Your task to perform on an android device: turn off improve location accuracy Image 0: 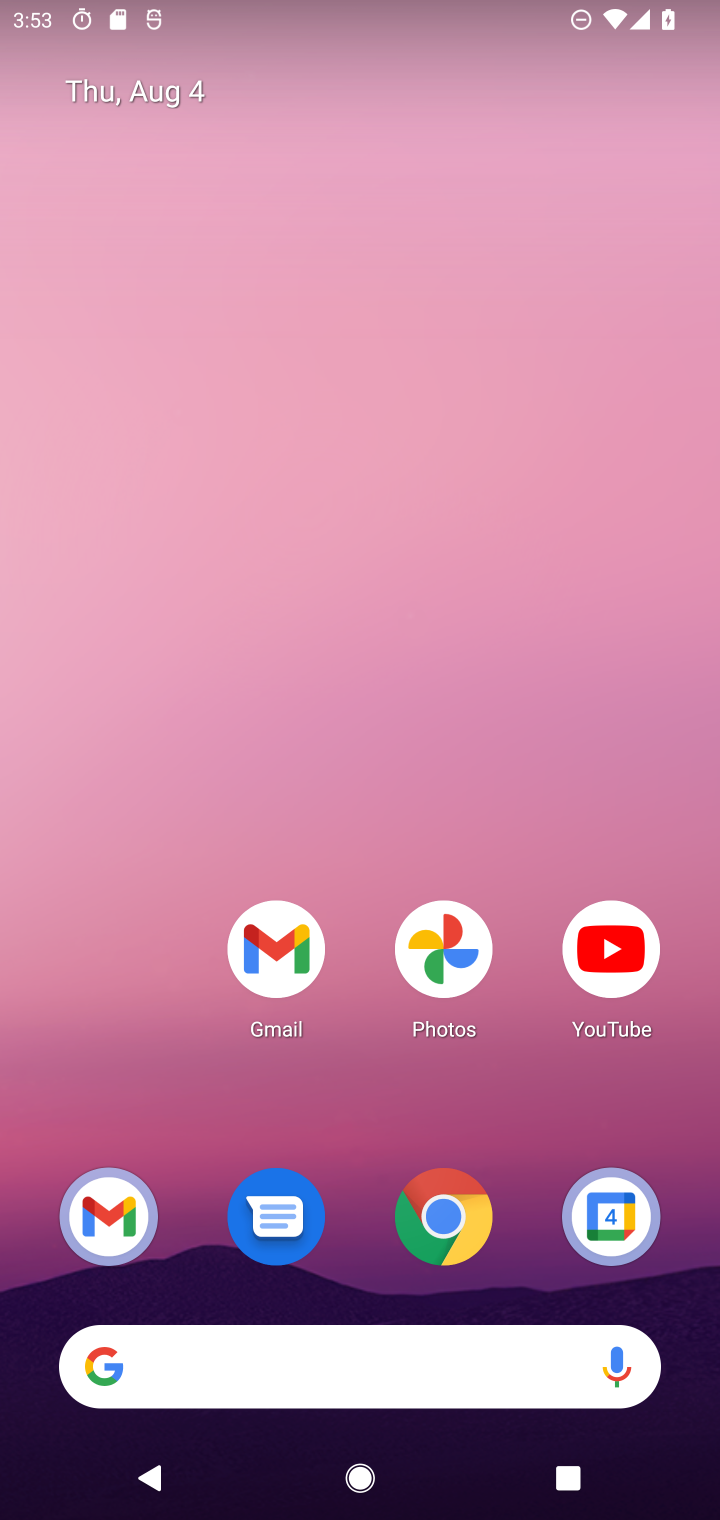
Step 0: drag from (188, 1076) to (236, 200)
Your task to perform on an android device: turn off improve location accuracy Image 1: 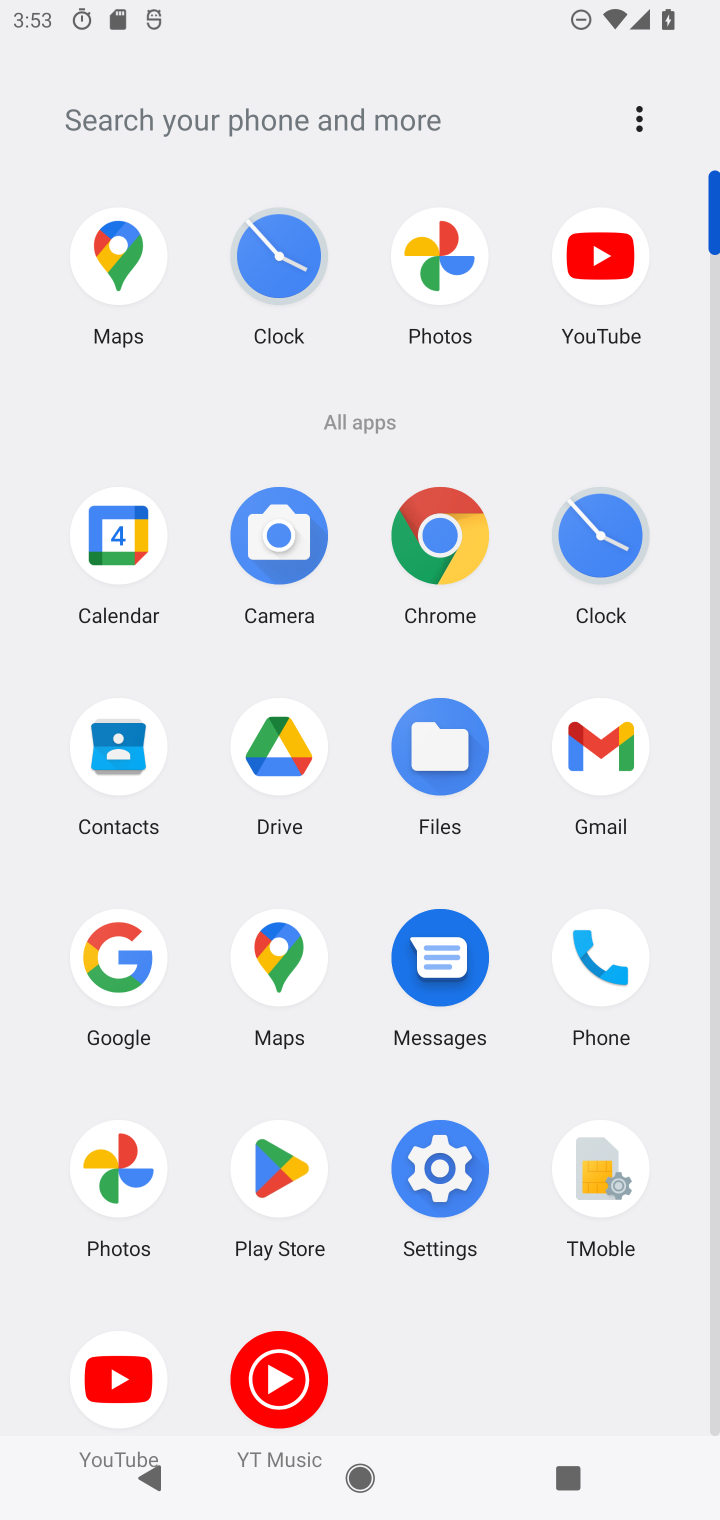
Step 1: click (446, 1160)
Your task to perform on an android device: turn off improve location accuracy Image 2: 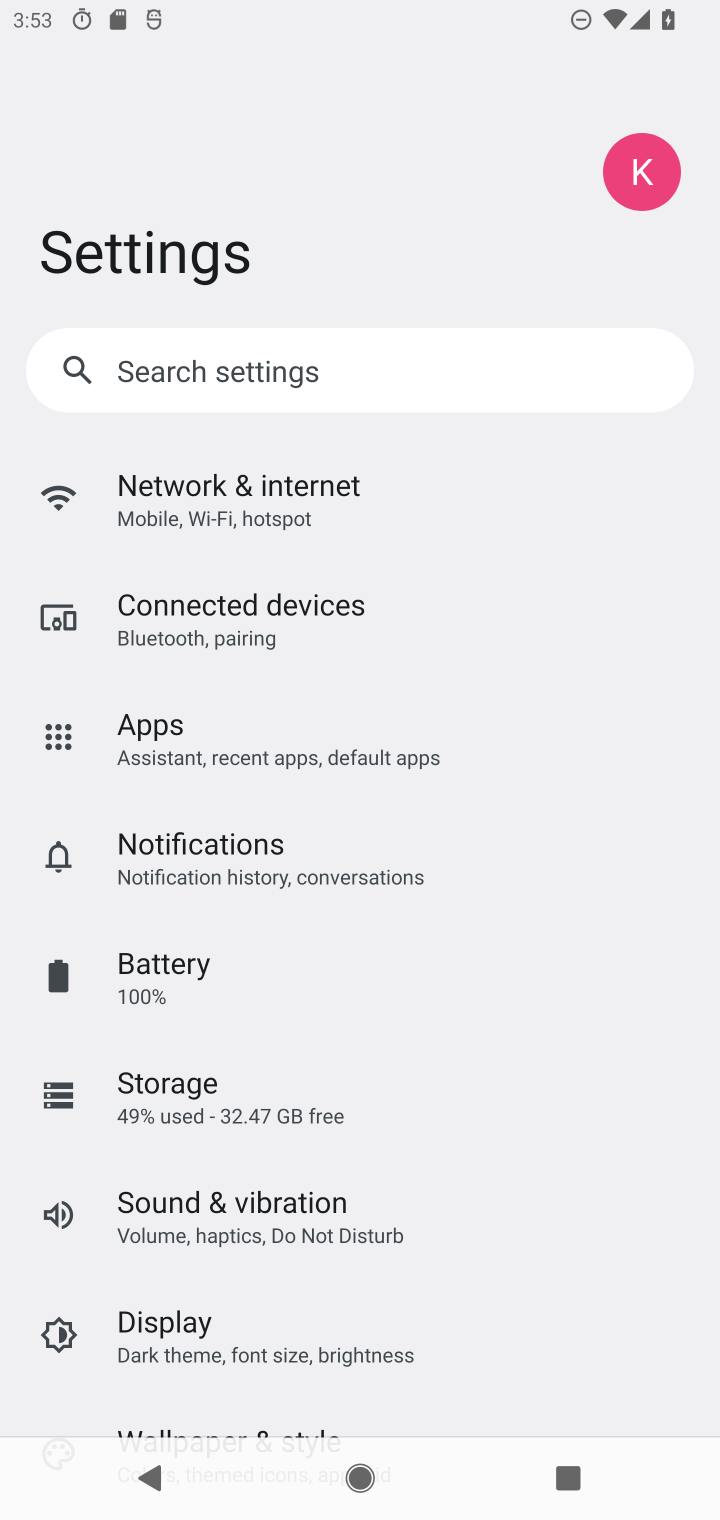
Step 2: drag from (263, 1320) to (555, 271)
Your task to perform on an android device: turn off improve location accuracy Image 3: 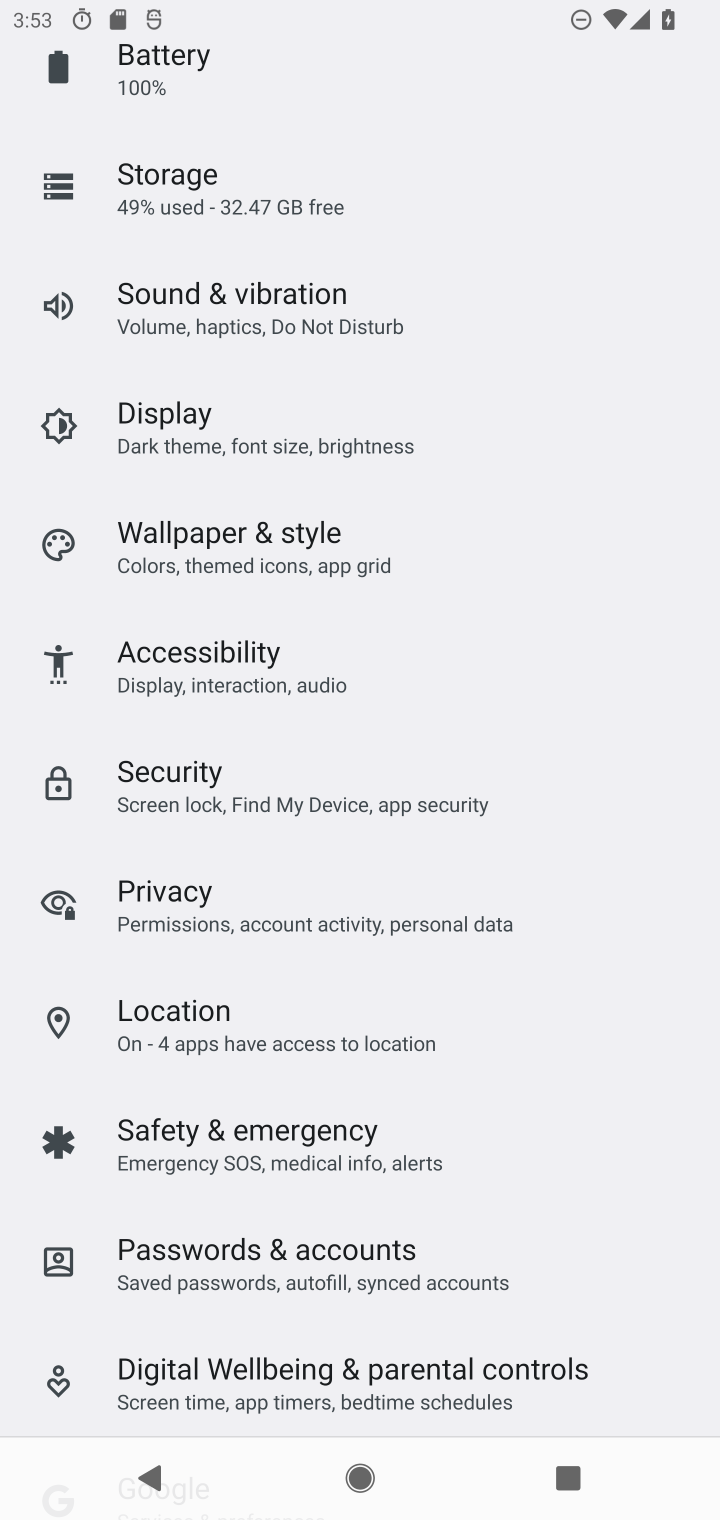
Step 3: click (182, 1017)
Your task to perform on an android device: turn off improve location accuracy Image 4: 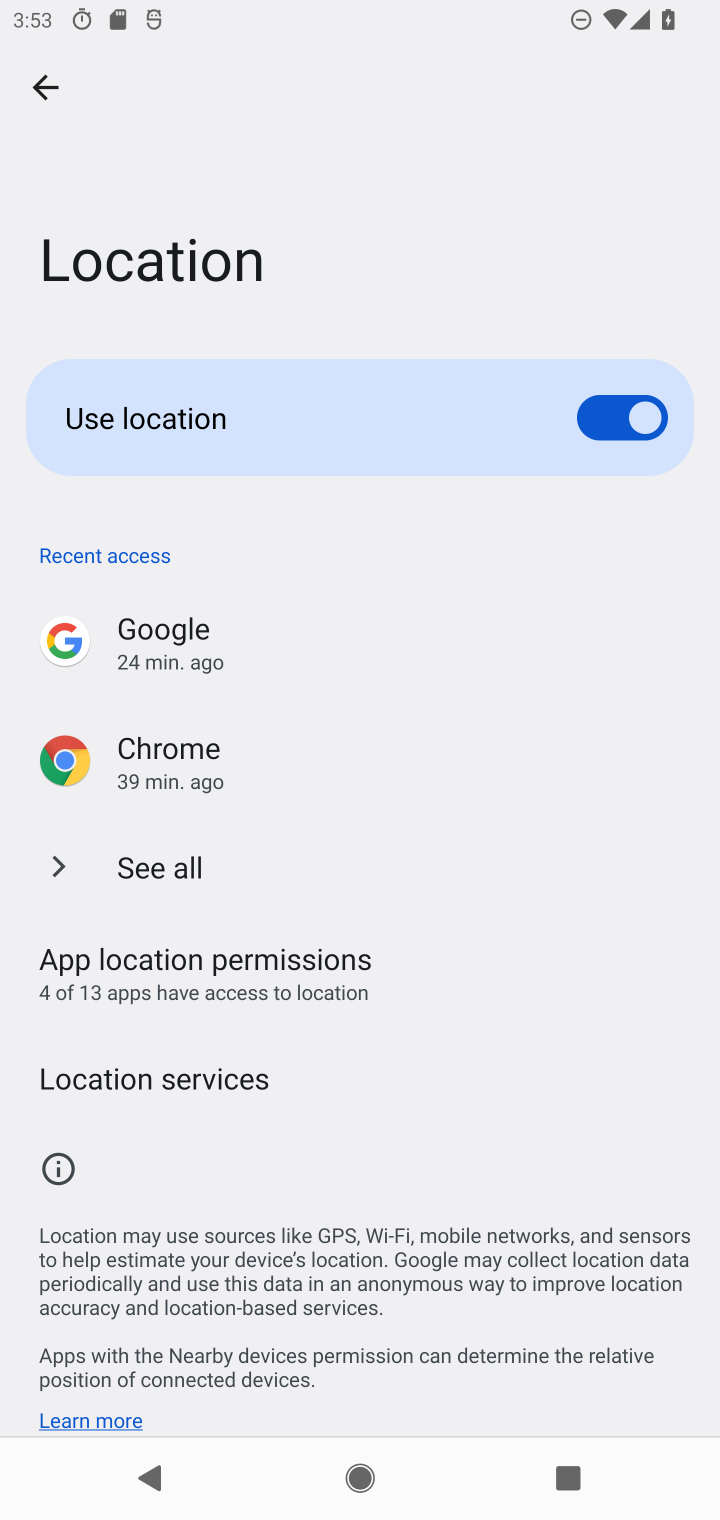
Step 4: click (159, 1074)
Your task to perform on an android device: turn off improve location accuracy Image 5: 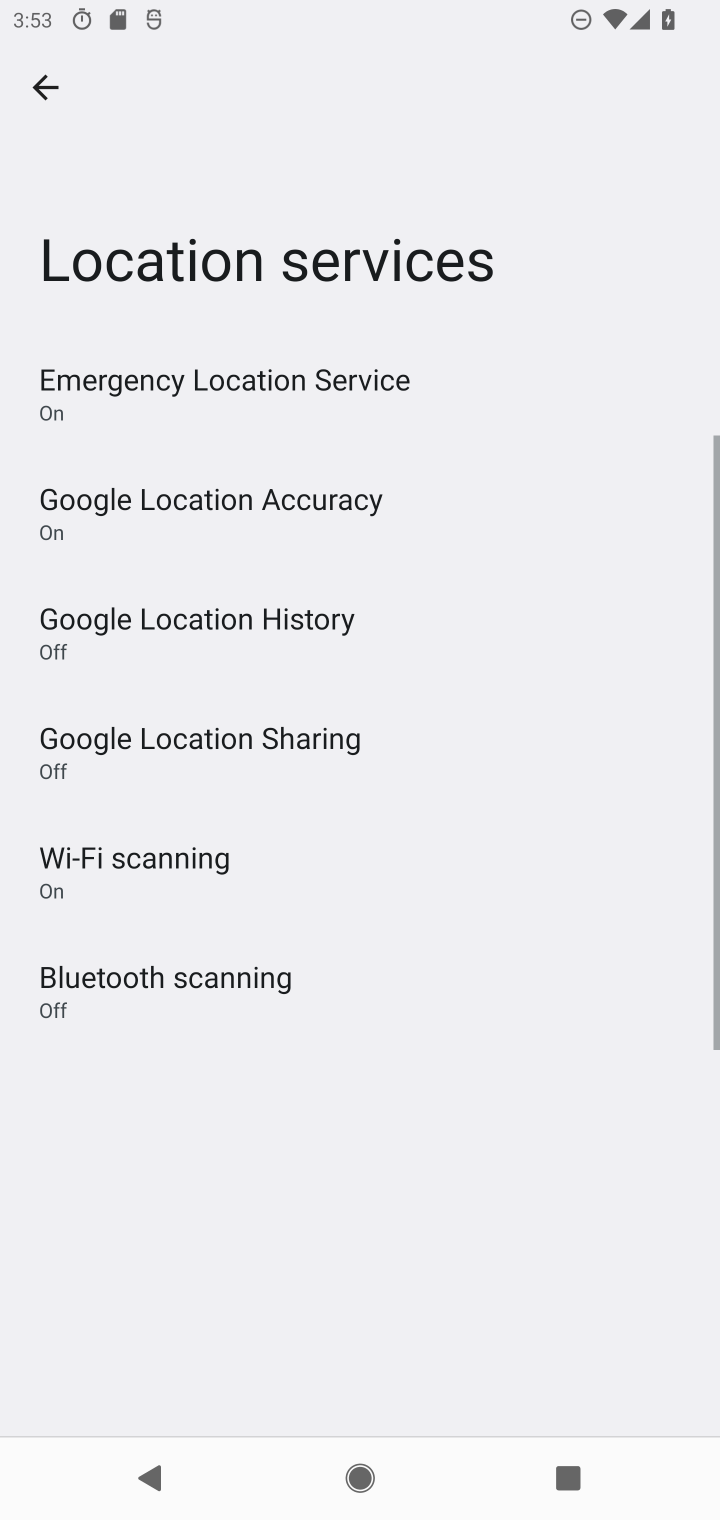
Step 5: click (164, 532)
Your task to perform on an android device: turn off improve location accuracy Image 6: 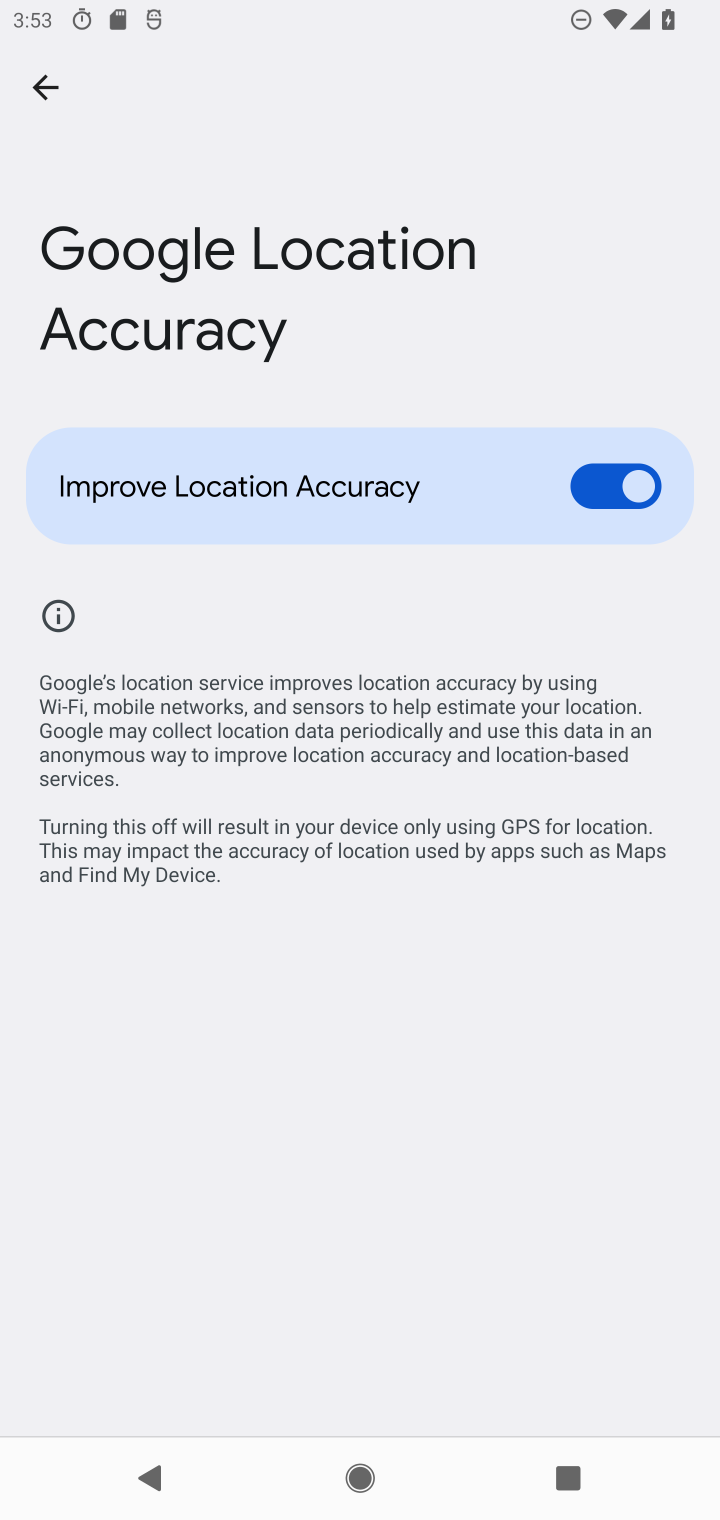
Step 6: click (610, 472)
Your task to perform on an android device: turn off improve location accuracy Image 7: 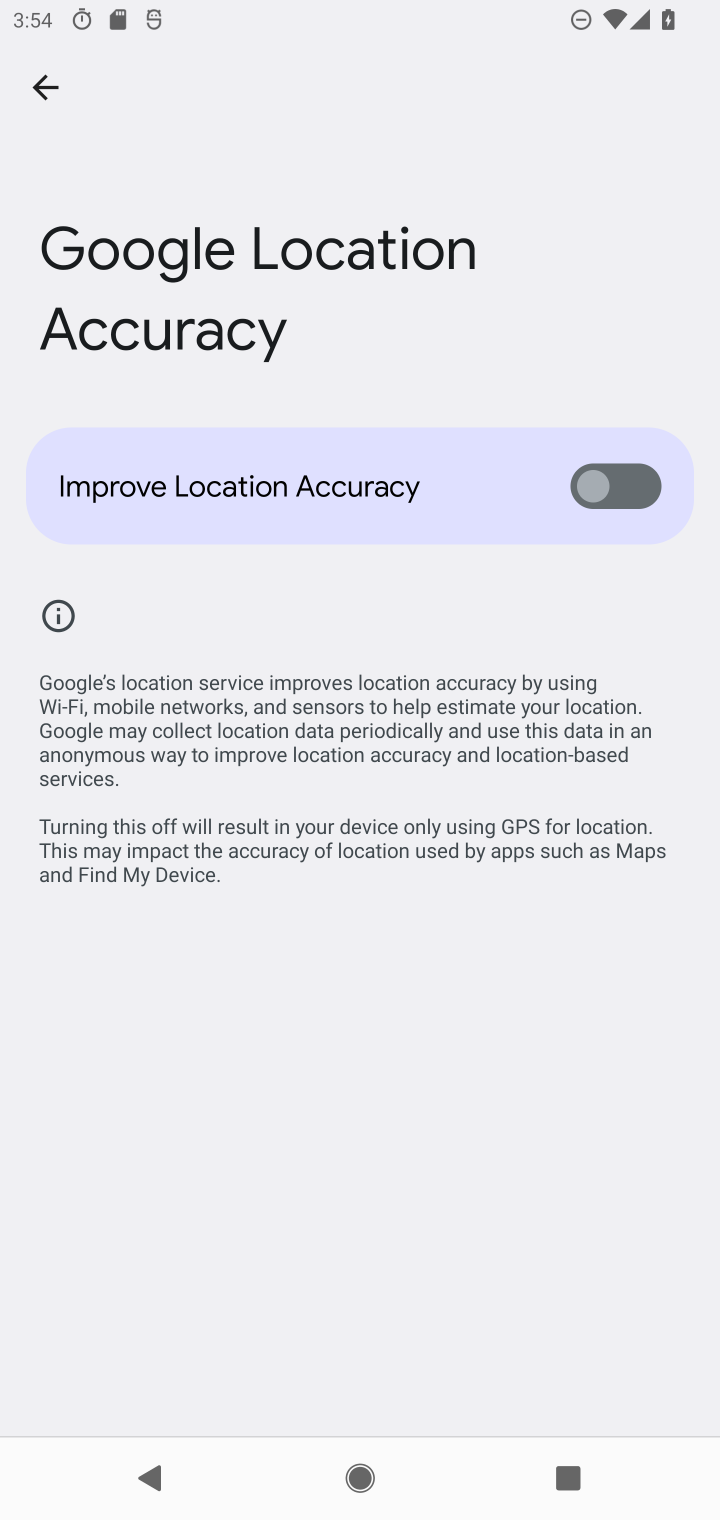
Step 7: task complete